Your task to perform on an android device: Turn on the flashlight Image 0: 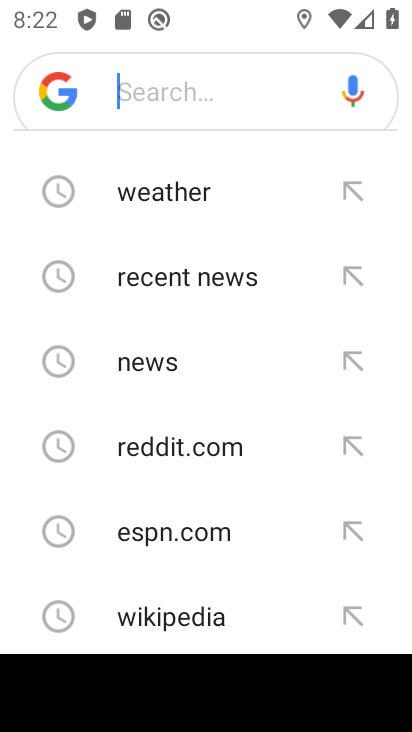
Step 0: press back button
Your task to perform on an android device: Turn on the flashlight Image 1: 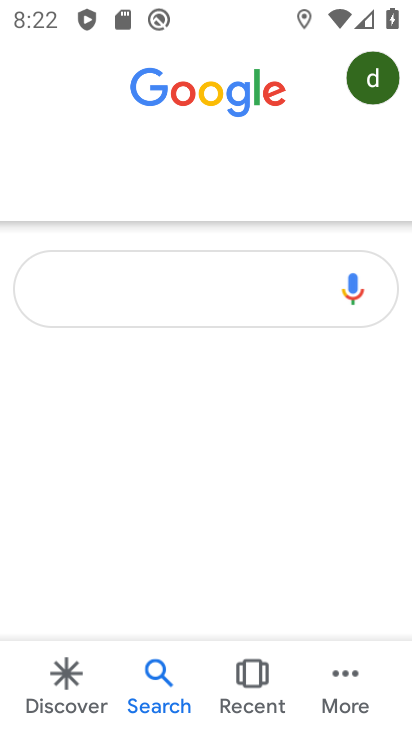
Step 1: press back button
Your task to perform on an android device: Turn on the flashlight Image 2: 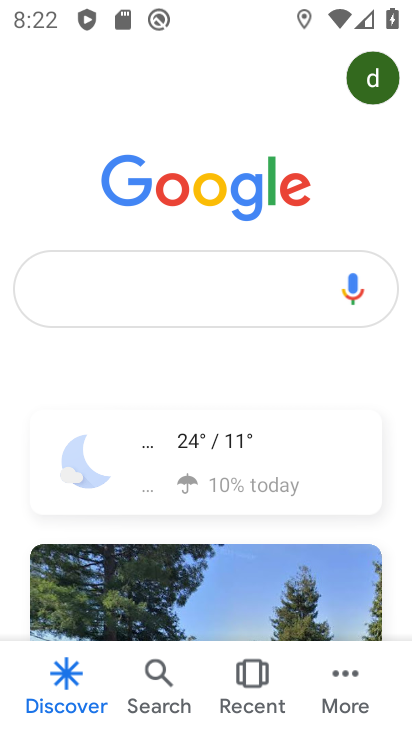
Step 2: press back button
Your task to perform on an android device: Turn on the flashlight Image 3: 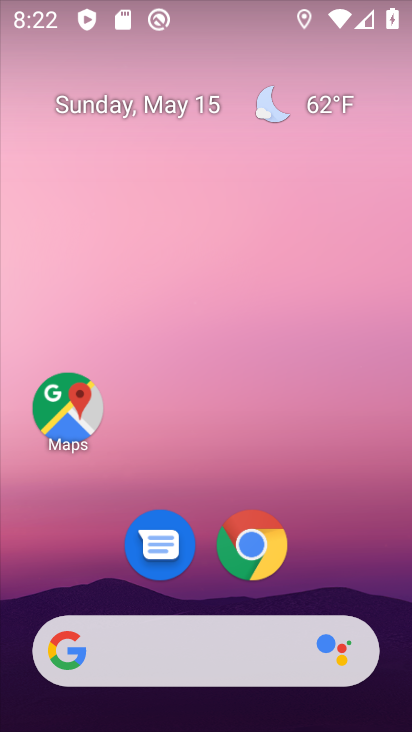
Step 3: drag from (324, 560) to (280, 170)
Your task to perform on an android device: Turn on the flashlight Image 4: 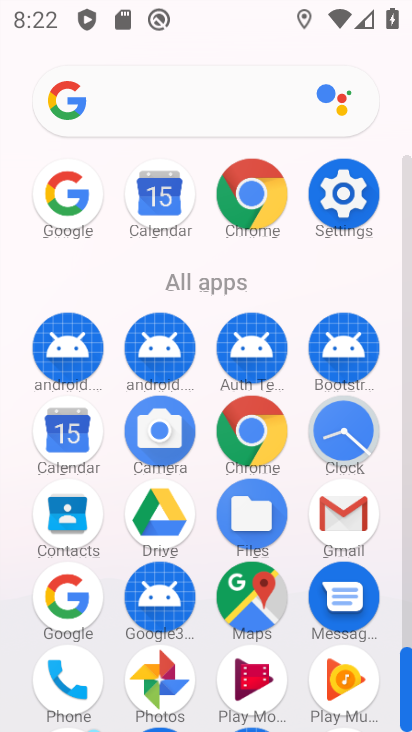
Step 4: click (346, 205)
Your task to perform on an android device: Turn on the flashlight Image 5: 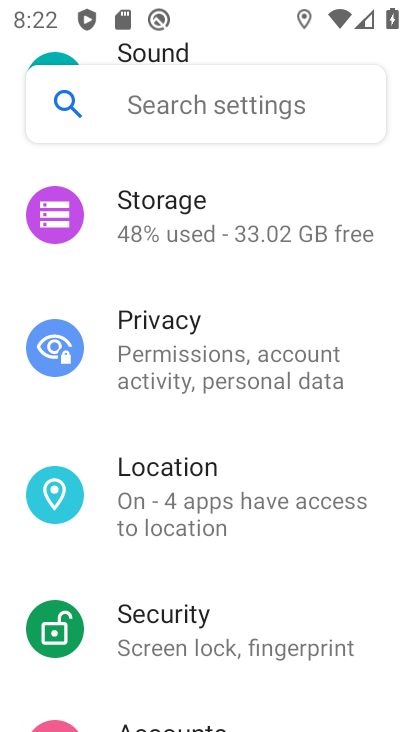
Step 5: task complete